Your task to perform on an android device: clear history in the chrome app Image 0: 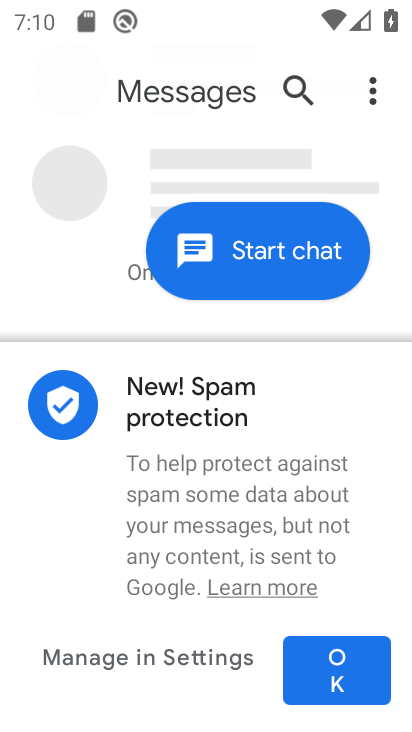
Step 0: press home button
Your task to perform on an android device: clear history in the chrome app Image 1: 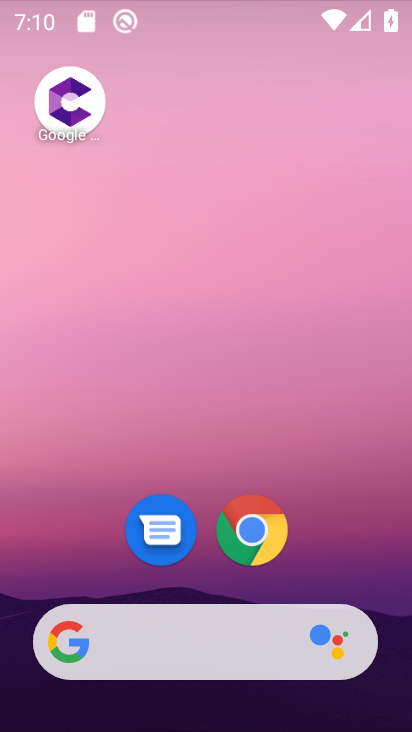
Step 1: drag from (393, 609) to (292, 90)
Your task to perform on an android device: clear history in the chrome app Image 2: 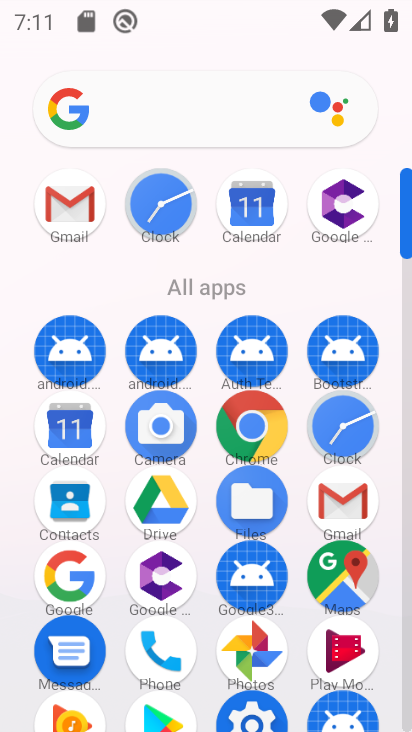
Step 2: click (245, 429)
Your task to perform on an android device: clear history in the chrome app Image 3: 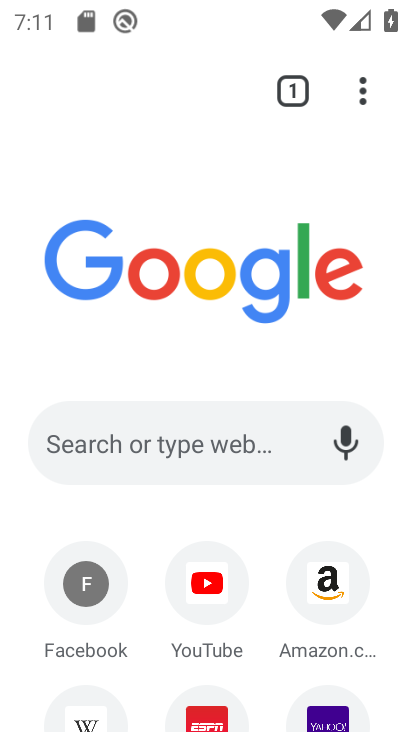
Step 3: click (362, 86)
Your task to perform on an android device: clear history in the chrome app Image 4: 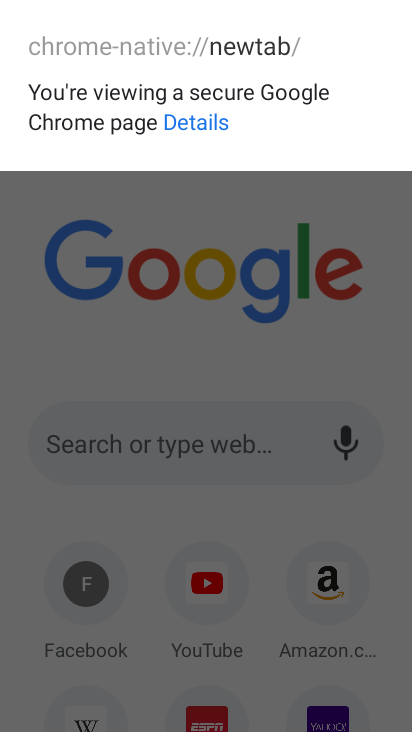
Step 4: click (330, 188)
Your task to perform on an android device: clear history in the chrome app Image 5: 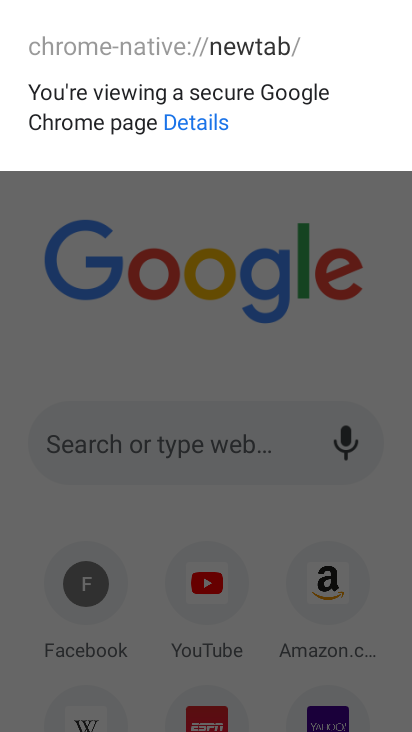
Step 5: click (297, 254)
Your task to perform on an android device: clear history in the chrome app Image 6: 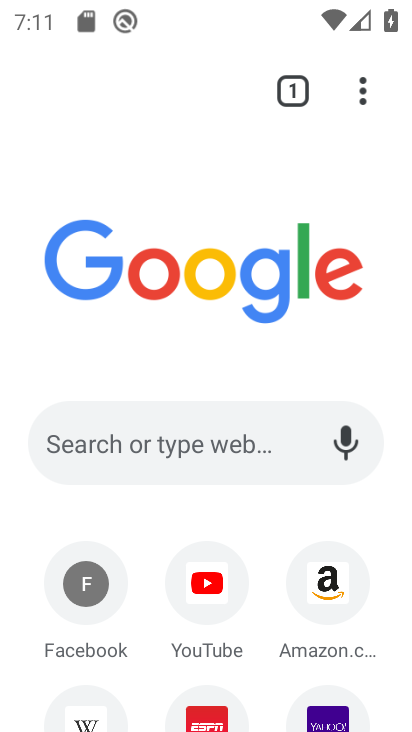
Step 6: click (128, 180)
Your task to perform on an android device: clear history in the chrome app Image 7: 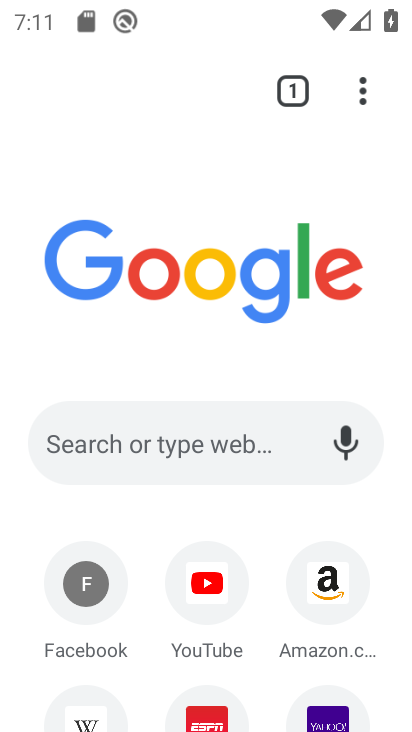
Step 7: click (128, 180)
Your task to perform on an android device: clear history in the chrome app Image 8: 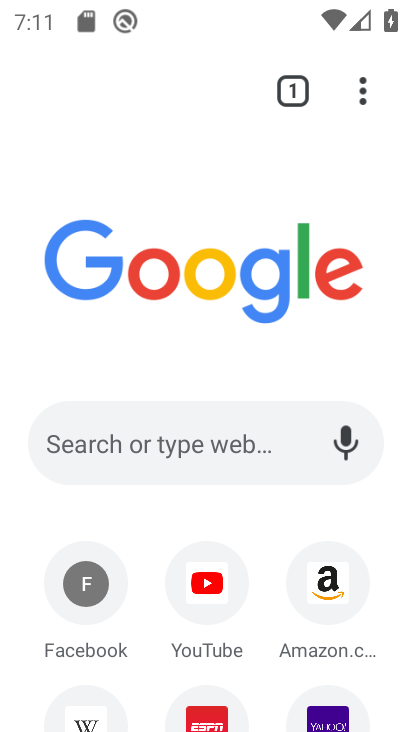
Step 8: click (364, 83)
Your task to perform on an android device: clear history in the chrome app Image 9: 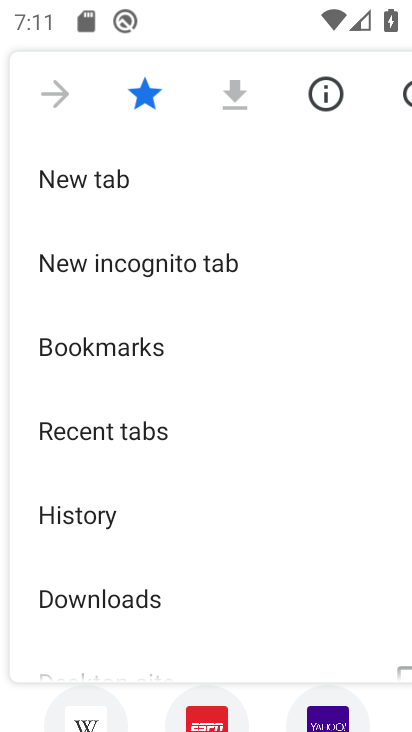
Step 9: click (129, 528)
Your task to perform on an android device: clear history in the chrome app Image 10: 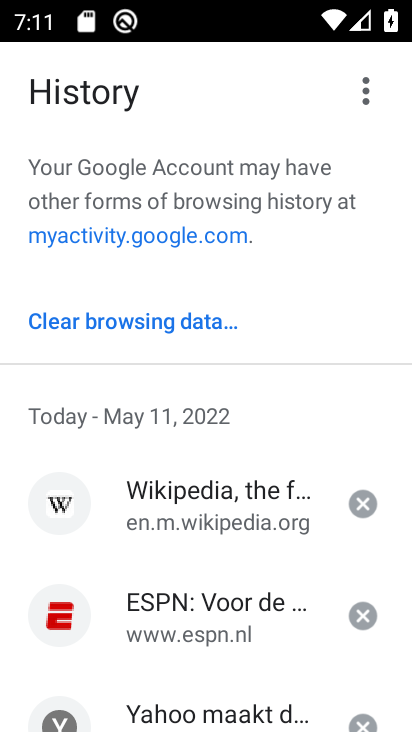
Step 10: click (166, 334)
Your task to perform on an android device: clear history in the chrome app Image 11: 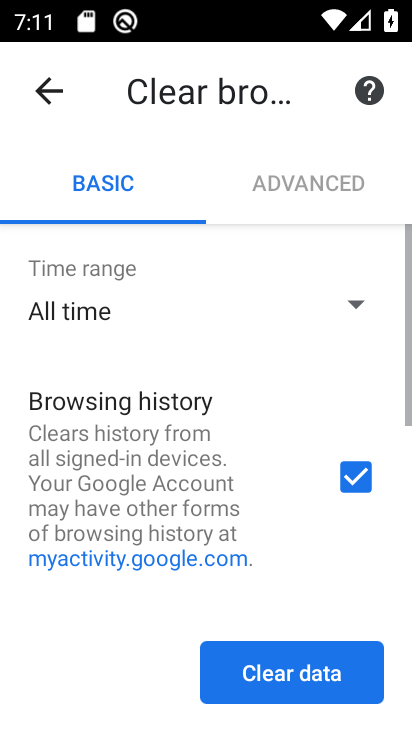
Step 11: click (293, 661)
Your task to perform on an android device: clear history in the chrome app Image 12: 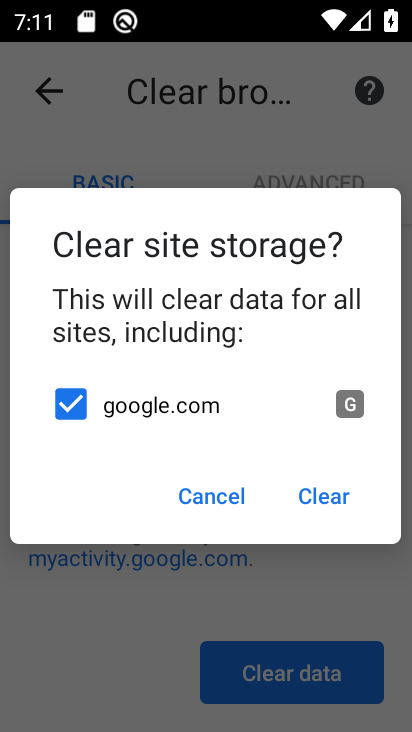
Step 12: click (331, 511)
Your task to perform on an android device: clear history in the chrome app Image 13: 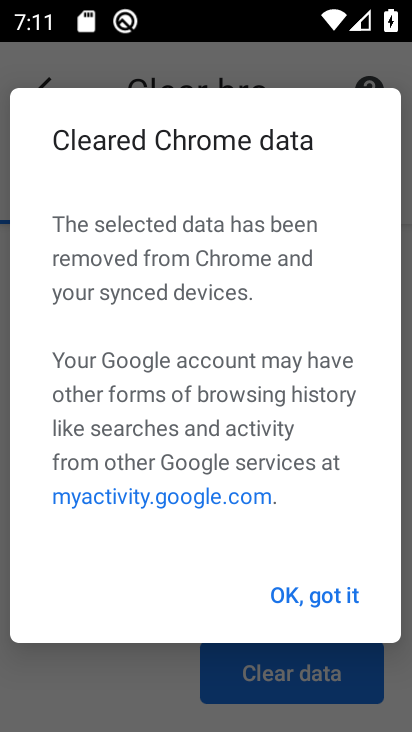
Step 13: click (308, 593)
Your task to perform on an android device: clear history in the chrome app Image 14: 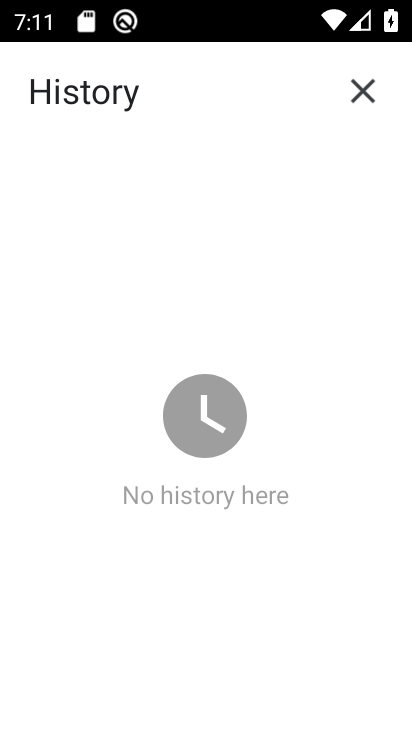
Step 14: task complete